Your task to perform on an android device: open sync settings in chrome Image 0: 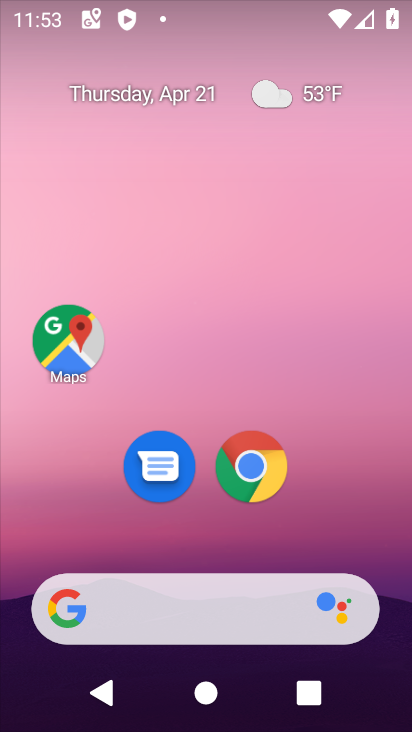
Step 0: click (252, 458)
Your task to perform on an android device: open sync settings in chrome Image 1: 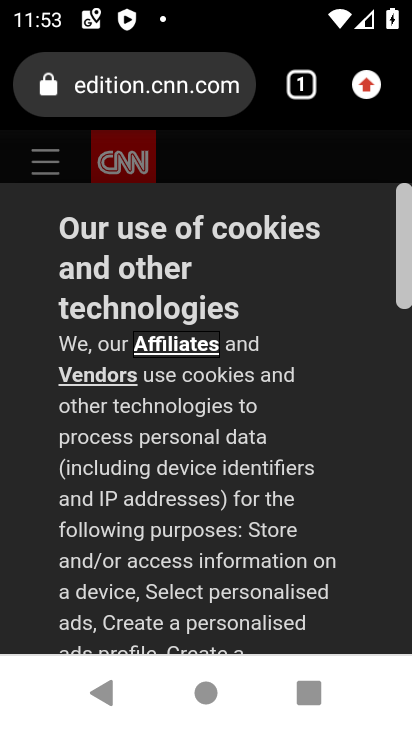
Step 1: drag from (361, 75) to (100, 507)
Your task to perform on an android device: open sync settings in chrome Image 2: 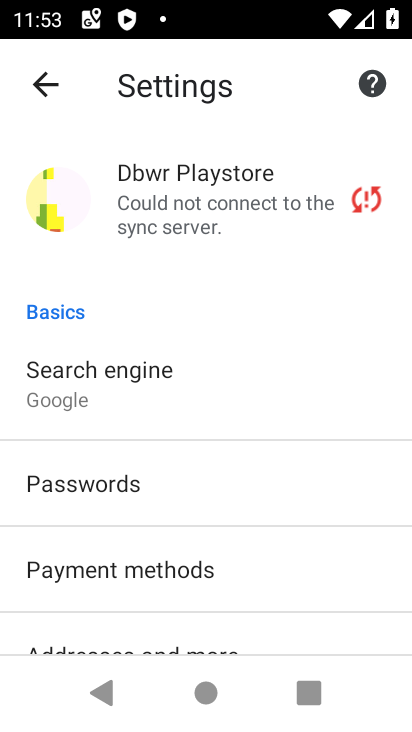
Step 2: click (183, 189)
Your task to perform on an android device: open sync settings in chrome Image 3: 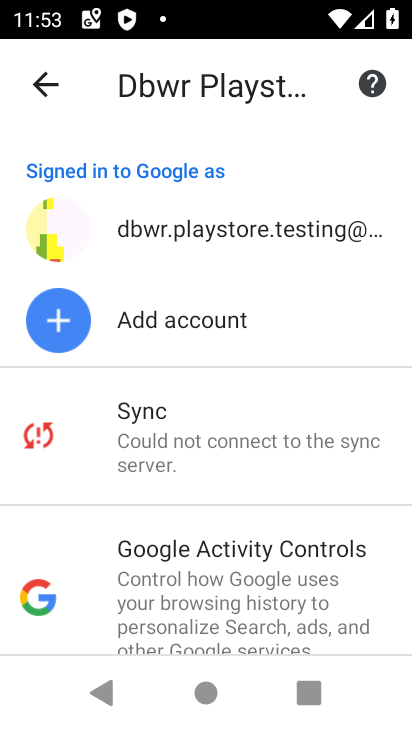
Step 3: click (188, 449)
Your task to perform on an android device: open sync settings in chrome Image 4: 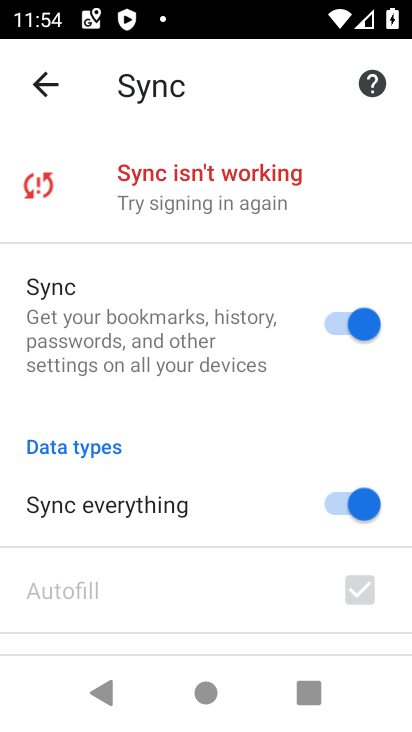
Step 4: task complete